Your task to perform on an android device: Check the news Image 0: 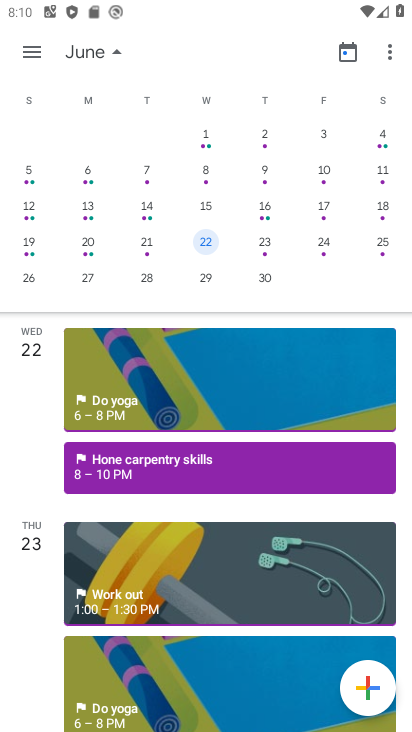
Step 0: press home button
Your task to perform on an android device: Check the news Image 1: 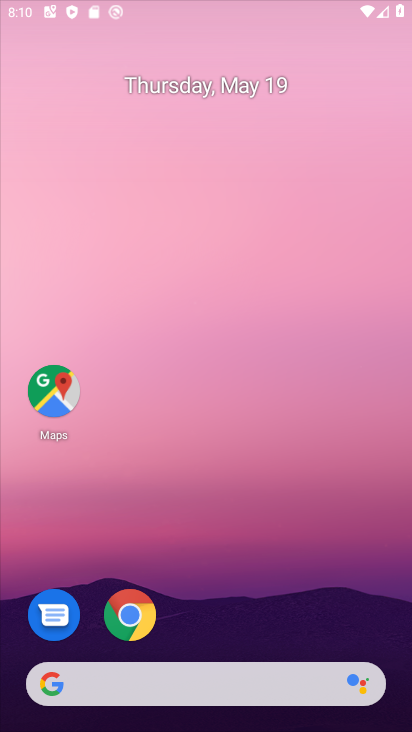
Step 1: drag from (224, 628) to (195, 188)
Your task to perform on an android device: Check the news Image 2: 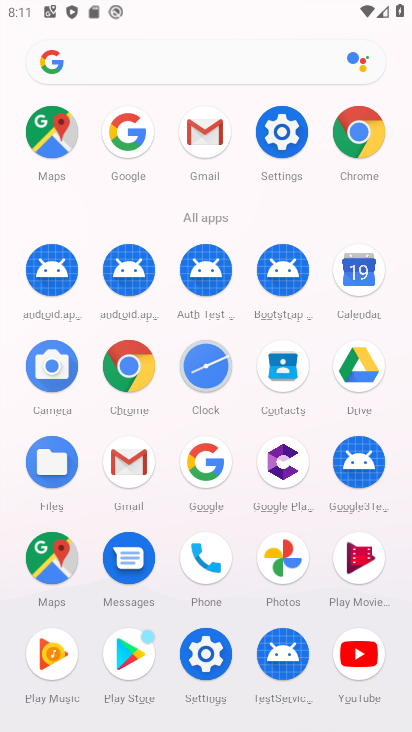
Step 2: click (129, 139)
Your task to perform on an android device: Check the news Image 3: 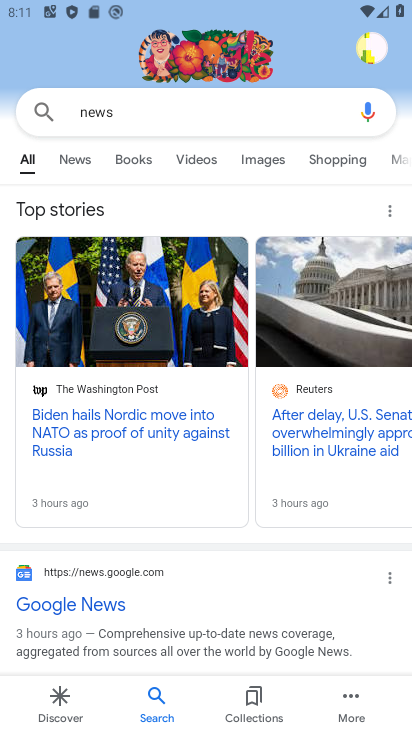
Step 3: task complete